Your task to perform on an android device: Open Chrome and go to the settings page Image 0: 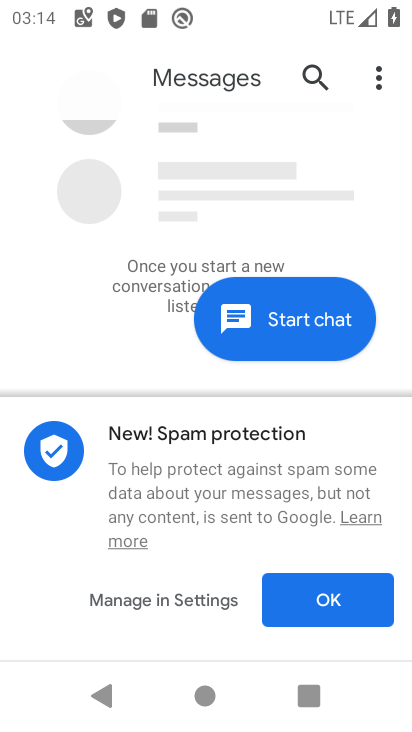
Step 0: press home button
Your task to perform on an android device: Open Chrome and go to the settings page Image 1: 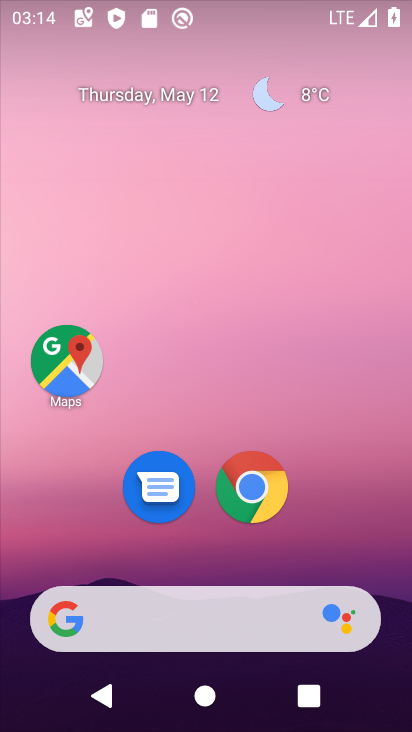
Step 1: drag from (407, 480) to (285, 79)
Your task to perform on an android device: Open Chrome and go to the settings page Image 2: 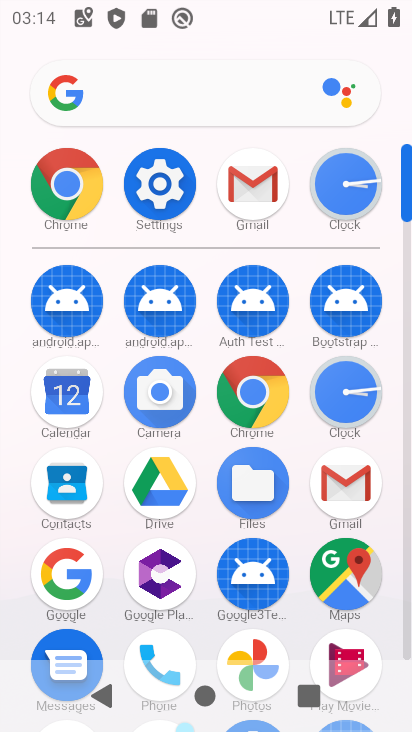
Step 2: click (170, 190)
Your task to perform on an android device: Open Chrome and go to the settings page Image 3: 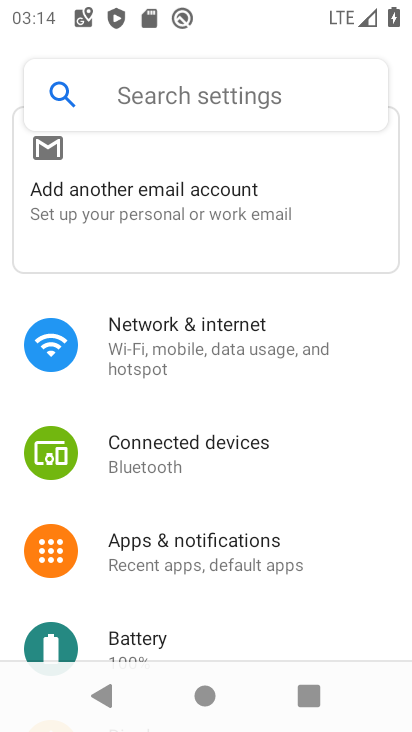
Step 3: drag from (239, 596) to (270, 264)
Your task to perform on an android device: Open Chrome and go to the settings page Image 4: 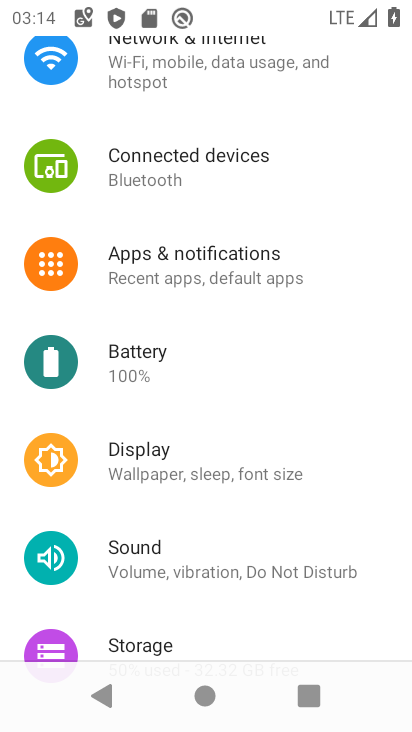
Step 4: drag from (279, 579) to (248, 299)
Your task to perform on an android device: Open Chrome and go to the settings page Image 5: 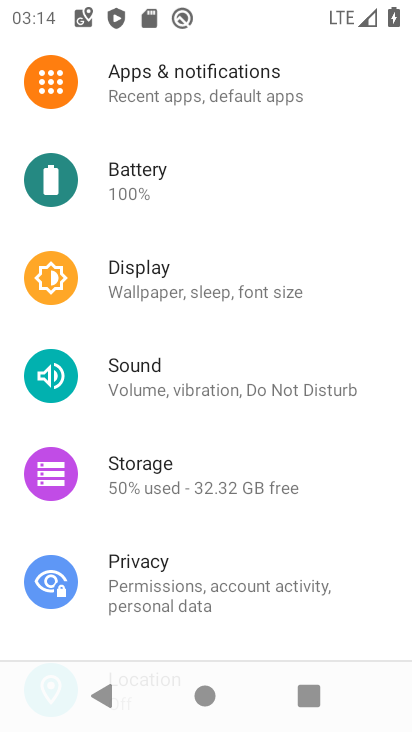
Step 5: drag from (273, 563) to (271, 294)
Your task to perform on an android device: Open Chrome and go to the settings page Image 6: 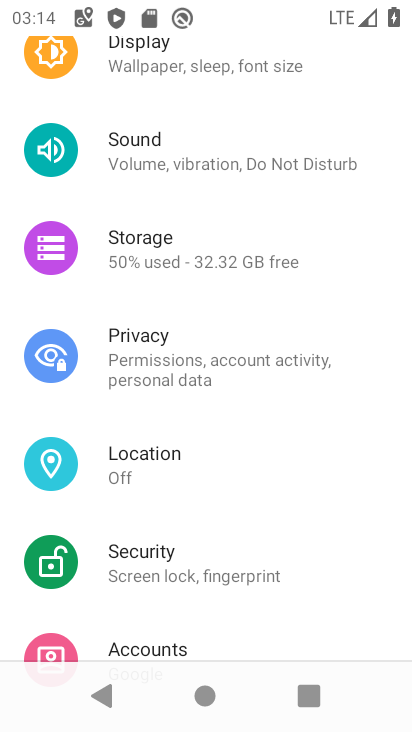
Step 6: press home button
Your task to perform on an android device: Open Chrome and go to the settings page Image 7: 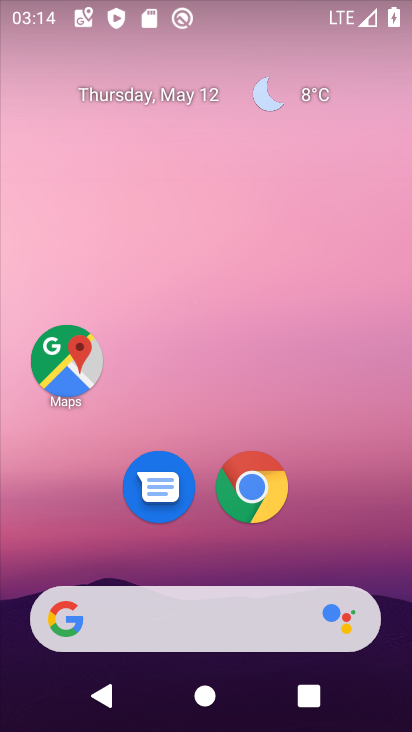
Step 7: click (249, 482)
Your task to perform on an android device: Open Chrome and go to the settings page Image 8: 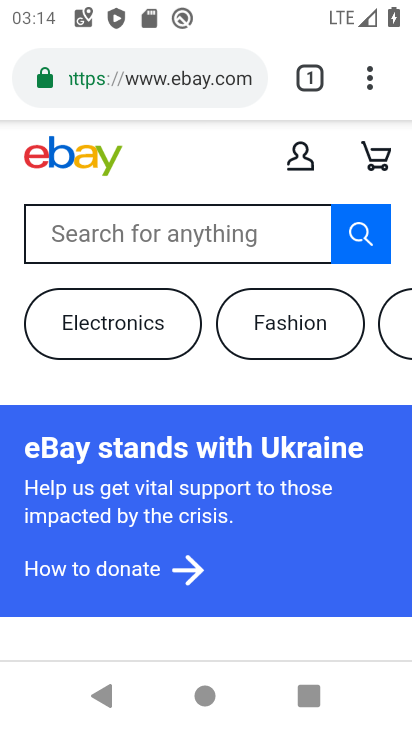
Step 8: task complete